Your task to perform on an android device: all mails in gmail Image 0: 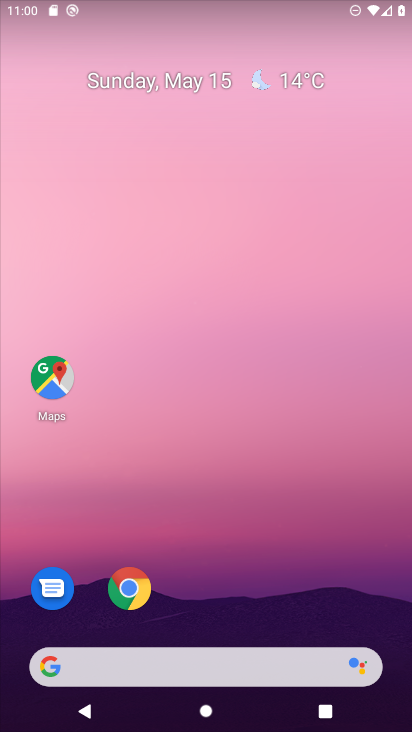
Step 0: drag from (246, 600) to (273, 19)
Your task to perform on an android device: all mails in gmail Image 1: 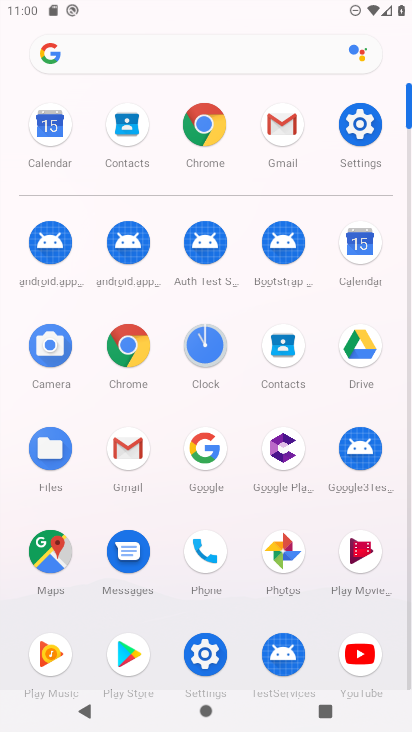
Step 1: click (124, 450)
Your task to perform on an android device: all mails in gmail Image 2: 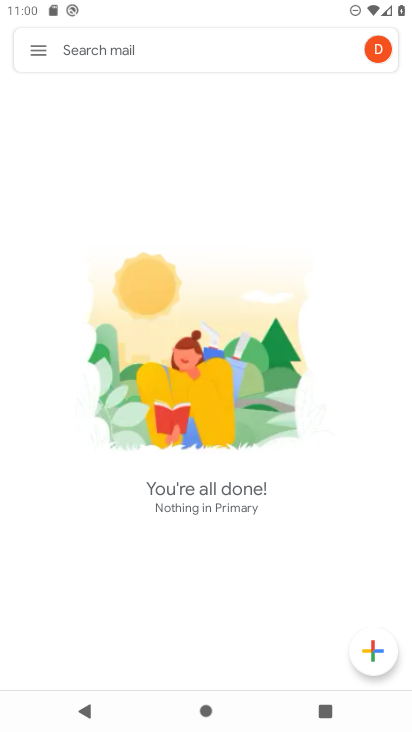
Step 2: click (42, 46)
Your task to perform on an android device: all mails in gmail Image 3: 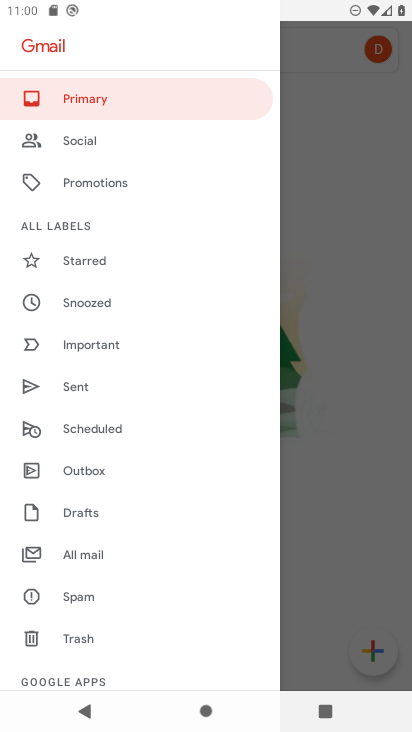
Step 3: click (84, 552)
Your task to perform on an android device: all mails in gmail Image 4: 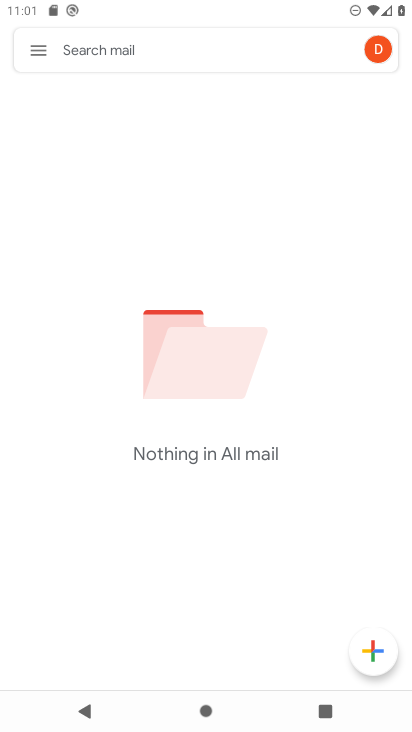
Step 4: task complete